Your task to perform on an android device: see tabs open on other devices in the chrome app Image 0: 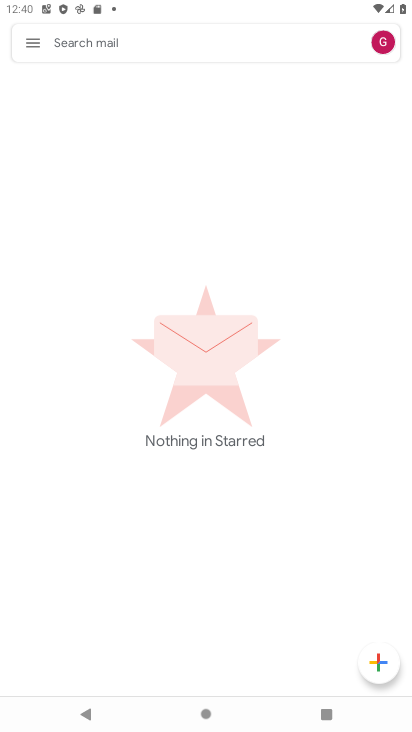
Step 0: press home button
Your task to perform on an android device: see tabs open on other devices in the chrome app Image 1: 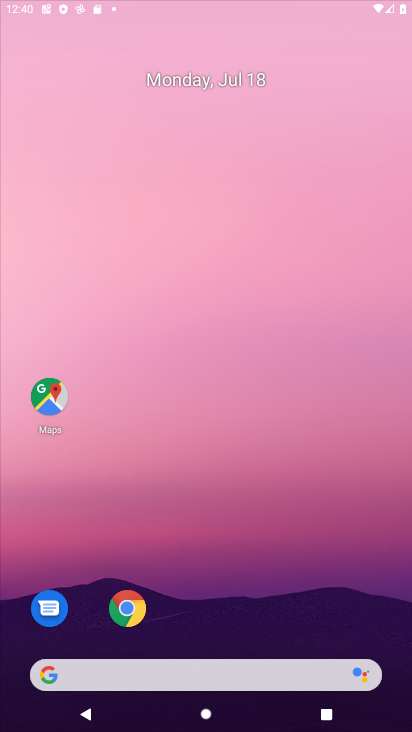
Step 1: drag from (406, 671) to (246, 108)
Your task to perform on an android device: see tabs open on other devices in the chrome app Image 2: 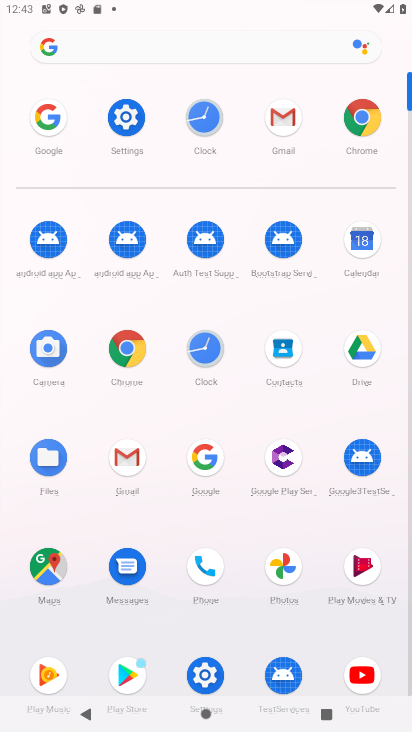
Step 2: click (366, 107)
Your task to perform on an android device: see tabs open on other devices in the chrome app Image 3: 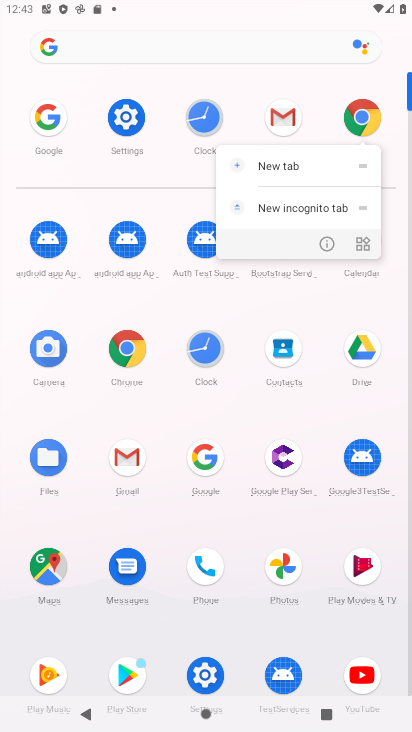
Step 3: click (365, 105)
Your task to perform on an android device: see tabs open on other devices in the chrome app Image 4: 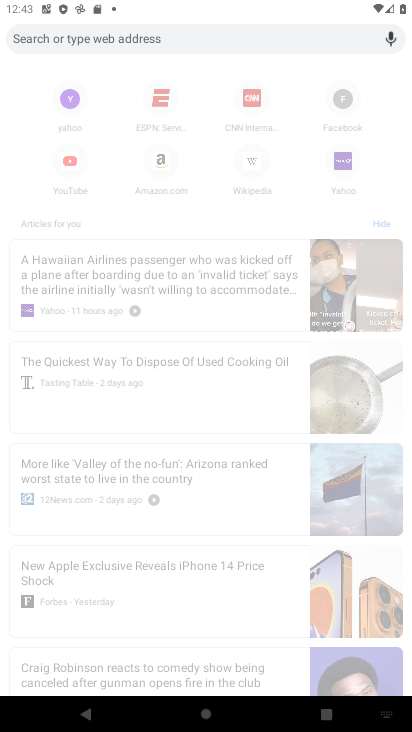
Step 4: task complete